Your task to perform on an android device: When is my next meeting? Image 0: 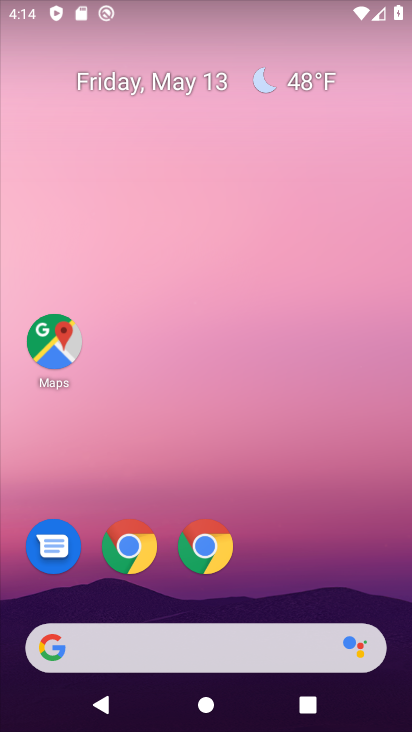
Step 0: drag from (350, 553) to (209, 120)
Your task to perform on an android device: When is my next meeting? Image 1: 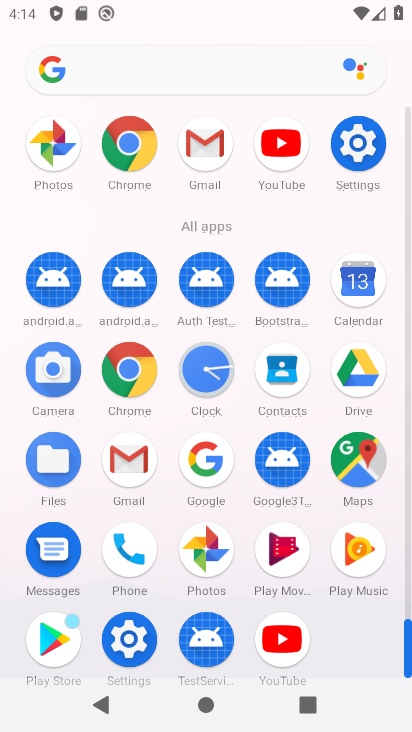
Step 1: click (357, 287)
Your task to perform on an android device: When is my next meeting? Image 2: 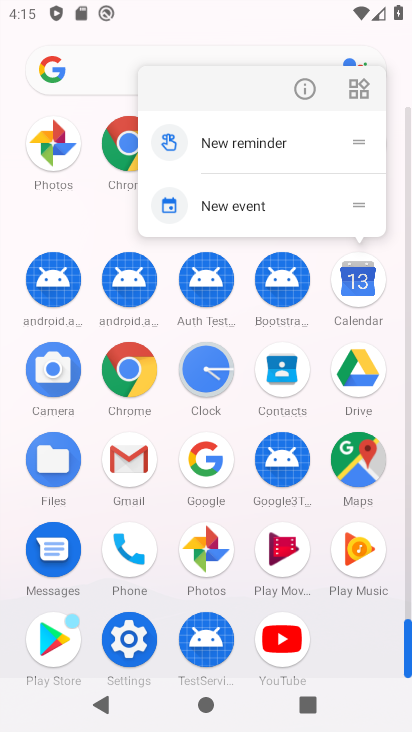
Step 2: click (347, 289)
Your task to perform on an android device: When is my next meeting? Image 3: 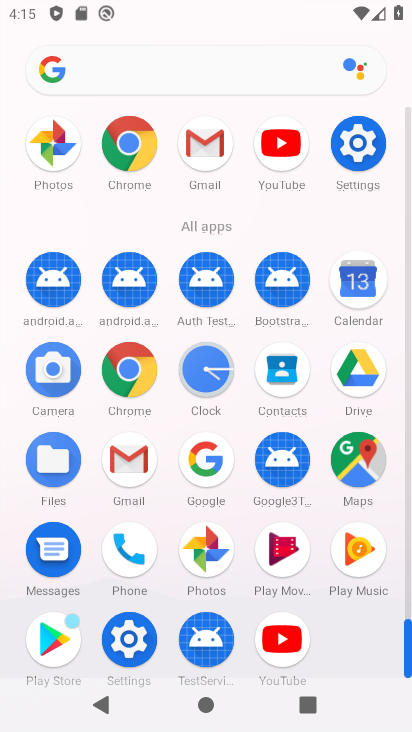
Step 3: click (354, 289)
Your task to perform on an android device: When is my next meeting? Image 4: 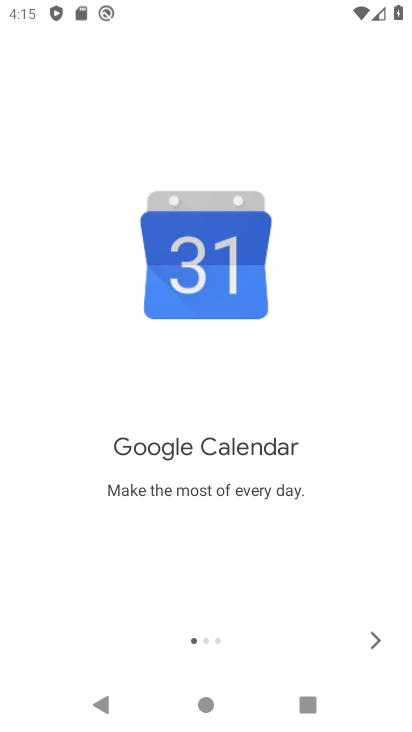
Step 4: click (385, 631)
Your task to perform on an android device: When is my next meeting? Image 5: 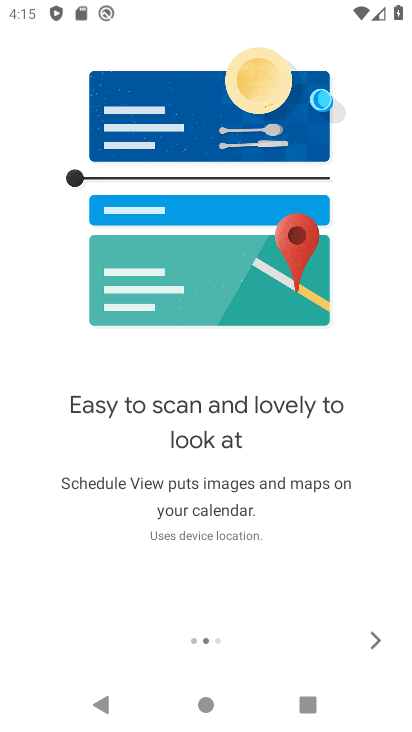
Step 5: click (380, 633)
Your task to perform on an android device: When is my next meeting? Image 6: 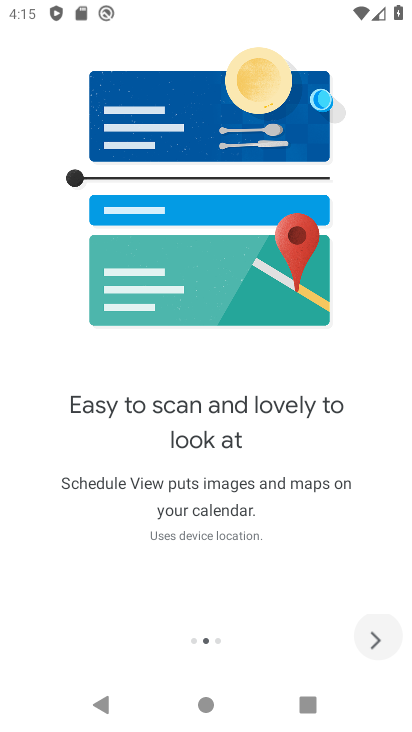
Step 6: click (380, 633)
Your task to perform on an android device: When is my next meeting? Image 7: 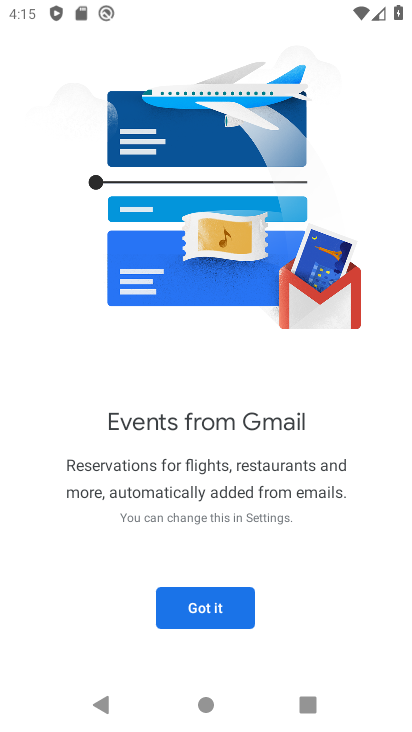
Step 7: click (210, 604)
Your task to perform on an android device: When is my next meeting? Image 8: 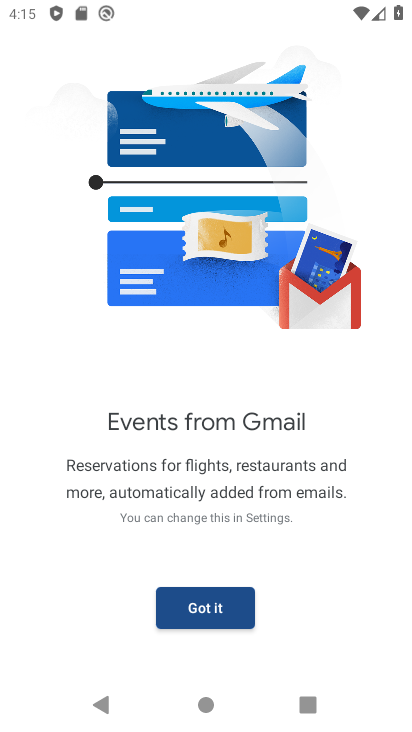
Step 8: click (212, 606)
Your task to perform on an android device: When is my next meeting? Image 9: 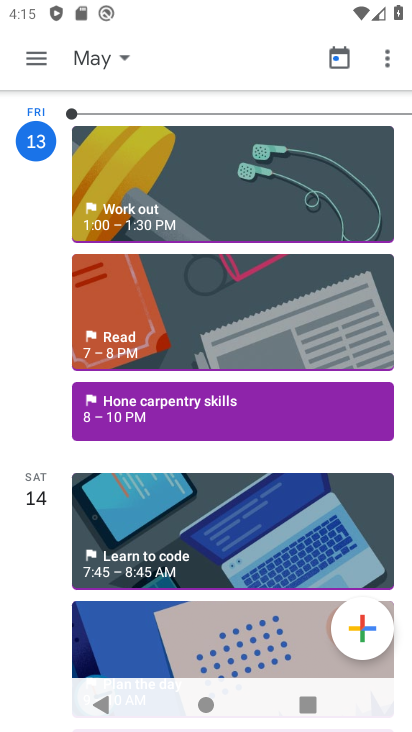
Step 9: click (121, 63)
Your task to perform on an android device: When is my next meeting? Image 10: 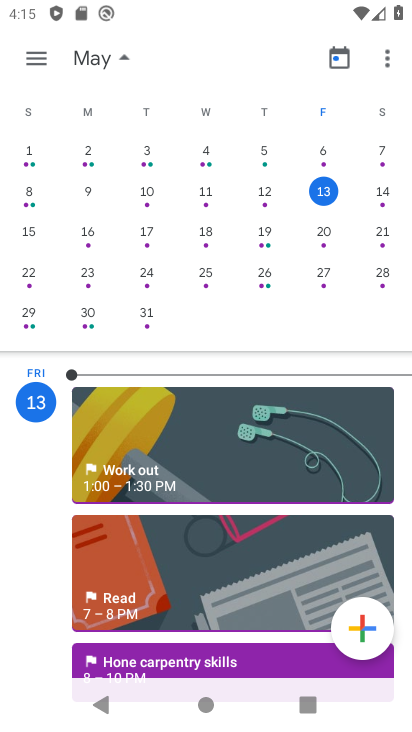
Step 10: task complete